Your task to perform on an android device: turn on improve location accuracy Image 0: 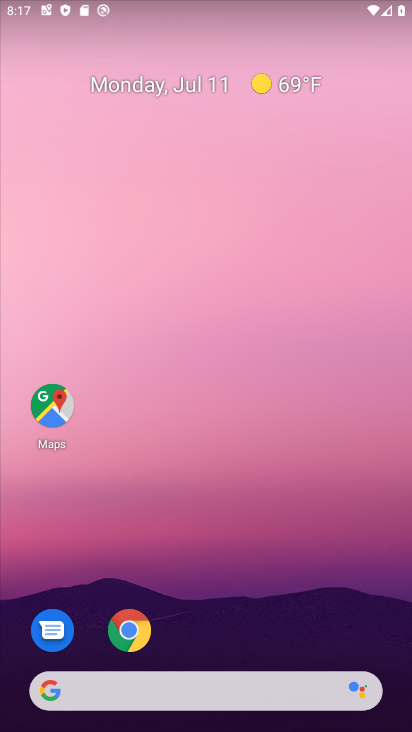
Step 0: click (137, 638)
Your task to perform on an android device: turn on improve location accuracy Image 1: 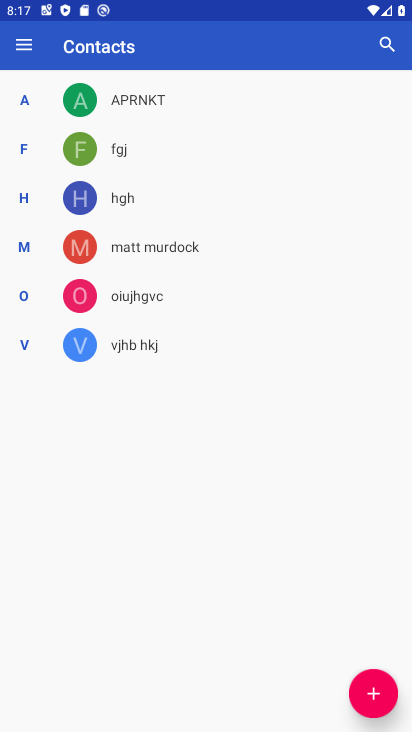
Step 1: press home button
Your task to perform on an android device: turn on improve location accuracy Image 2: 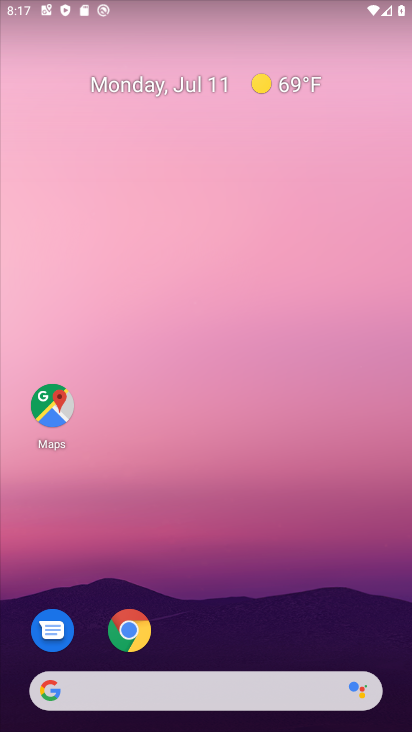
Step 2: drag from (195, 678) to (218, 154)
Your task to perform on an android device: turn on improve location accuracy Image 3: 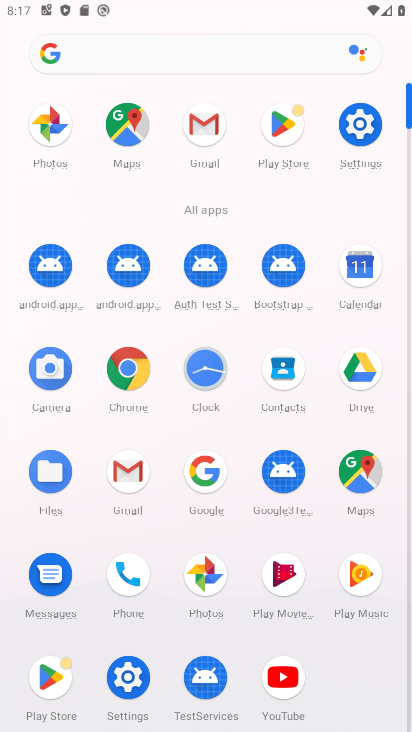
Step 3: click (370, 122)
Your task to perform on an android device: turn on improve location accuracy Image 4: 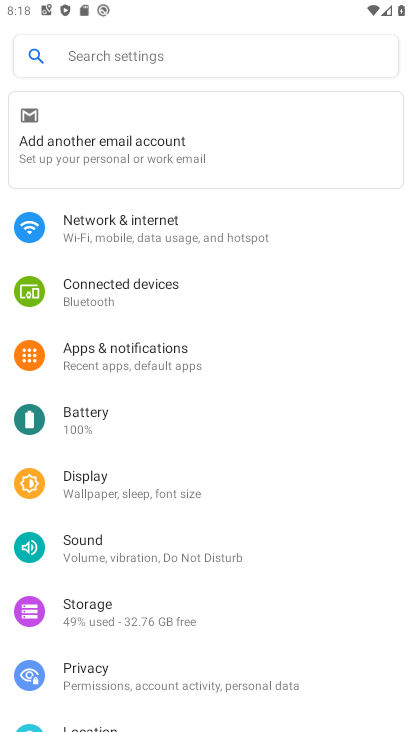
Step 4: drag from (135, 635) to (132, 213)
Your task to perform on an android device: turn on improve location accuracy Image 5: 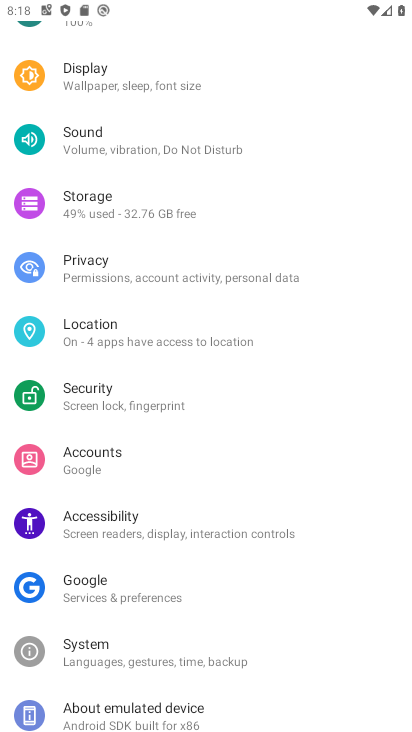
Step 5: click (124, 319)
Your task to perform on an android device: turn on improve location accuracy Image 6: 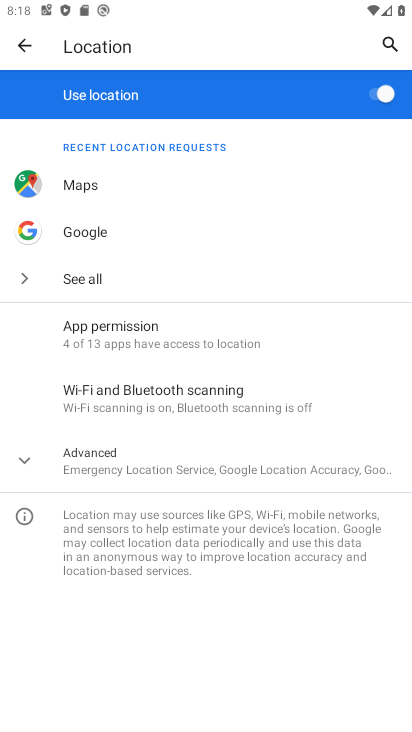
Step 6: click (131, 467)
Your task to perform on an android device: turn on improve location accuracy Image 7: 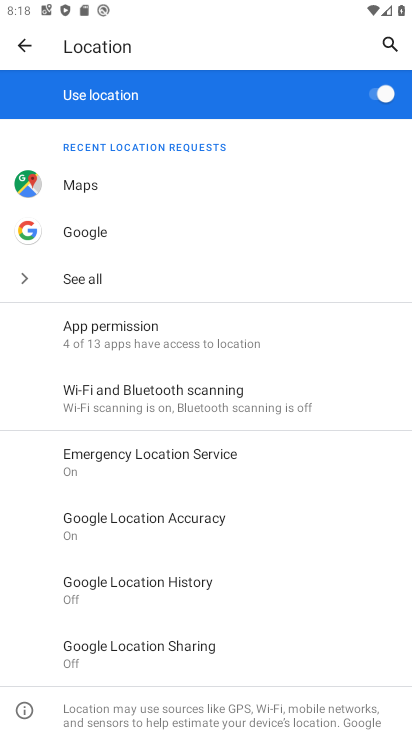
Step 7: click (163, 522)
Your task to perform on an android device: turn on improve location accuracy Image 8: 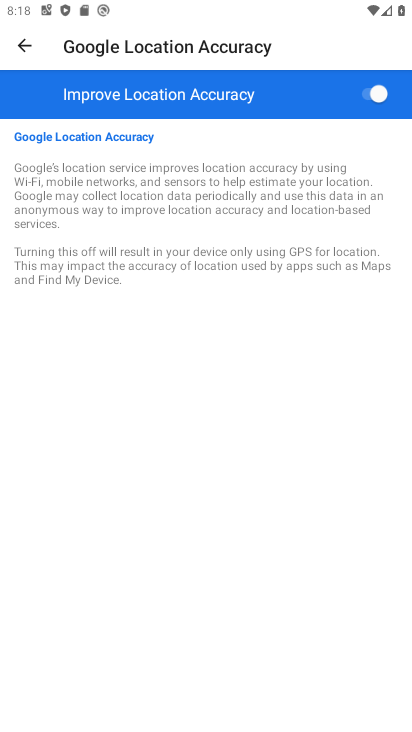
Step 8: task complete